Your task to perform on an android device: Go to Yahoo.com Image 0: 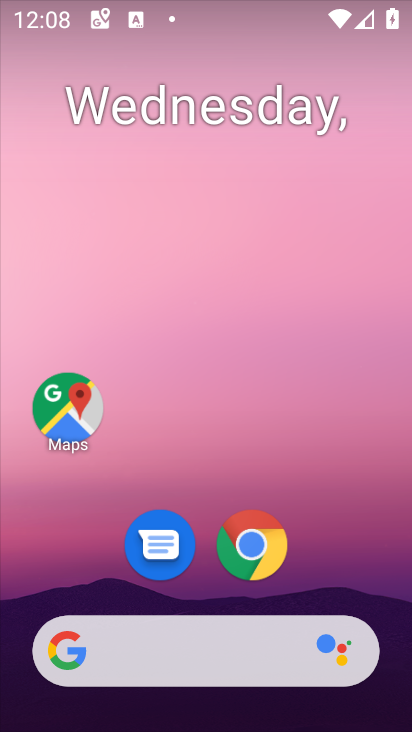
Step 0: click (246, 541)
Your task to perform on an android device: Go to Yahoo.com Image 1: 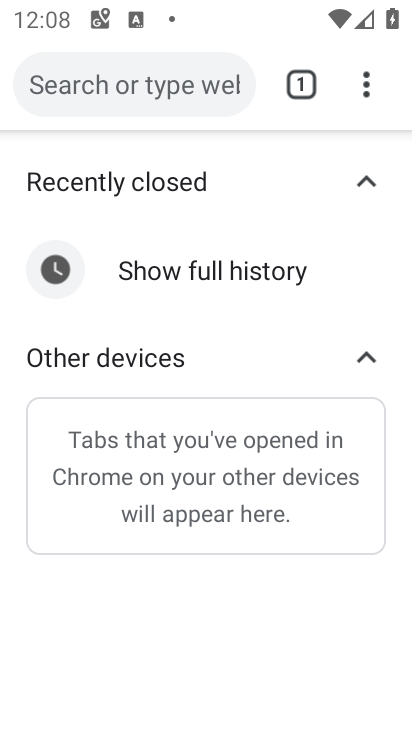
Step 1: click (113, 67)
Your task to perform on an android device: Go to Yahoo.com Image 2: 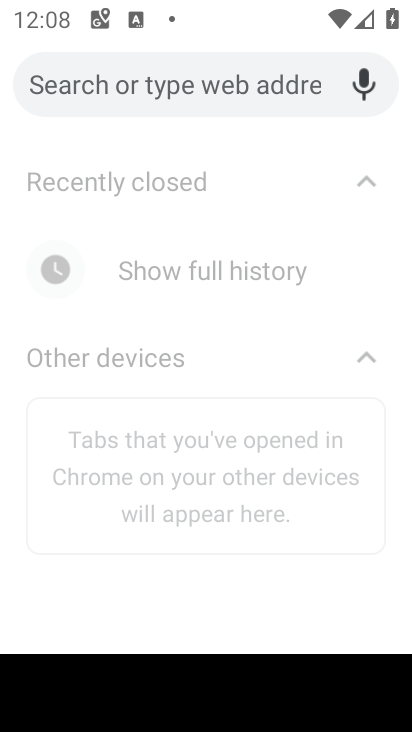
Step 2: type "Yahoo.com"
Your task to perform on an android device: Go to Yahoo.com Image 3: 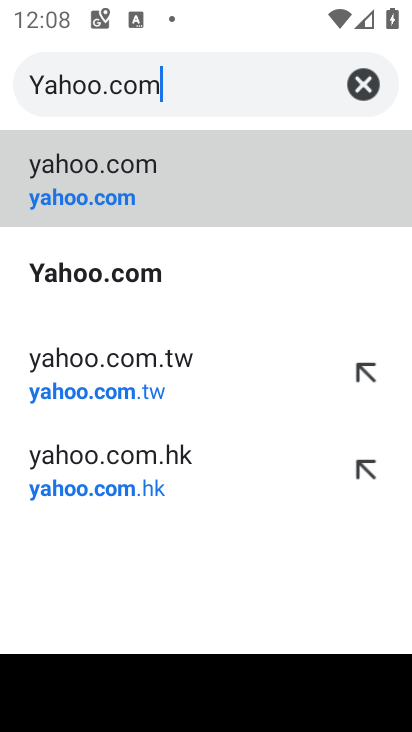
Step 3: click (122, 213)
Your task to perform on an android device: Go to Yahoo.com Image 4: 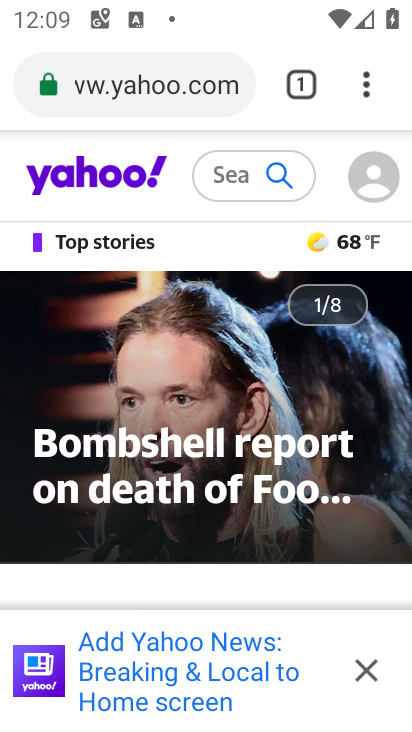
Step 4: task complete